Your task to perform on an android device: View the shopping cart on target.com. Add sony triple a to the cart on target.com, then select checkout. Image 0: 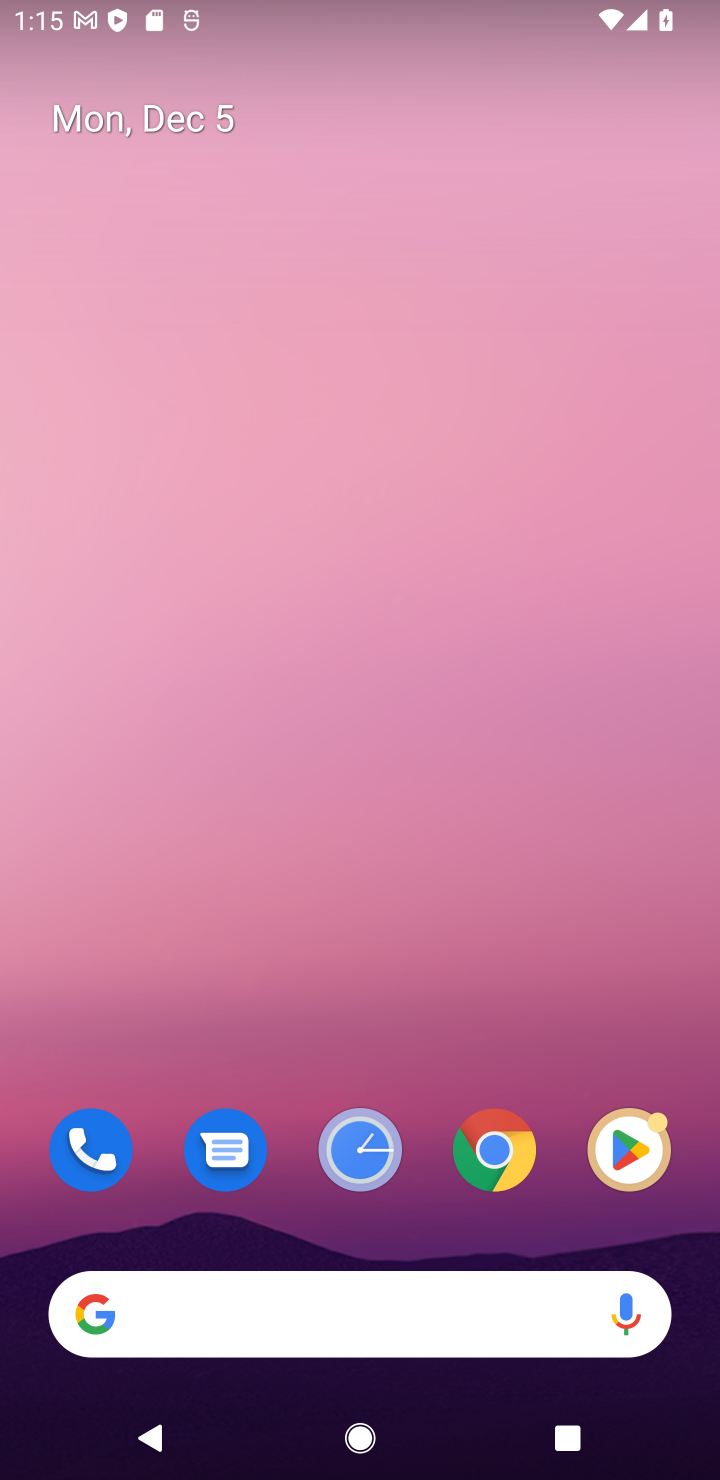
Step 0: click (510, 1158)
Your task to perform on an android device: View the shopping cart on target.com. Add sony triple a to the cart on target.com, then select checkout. Image 1: 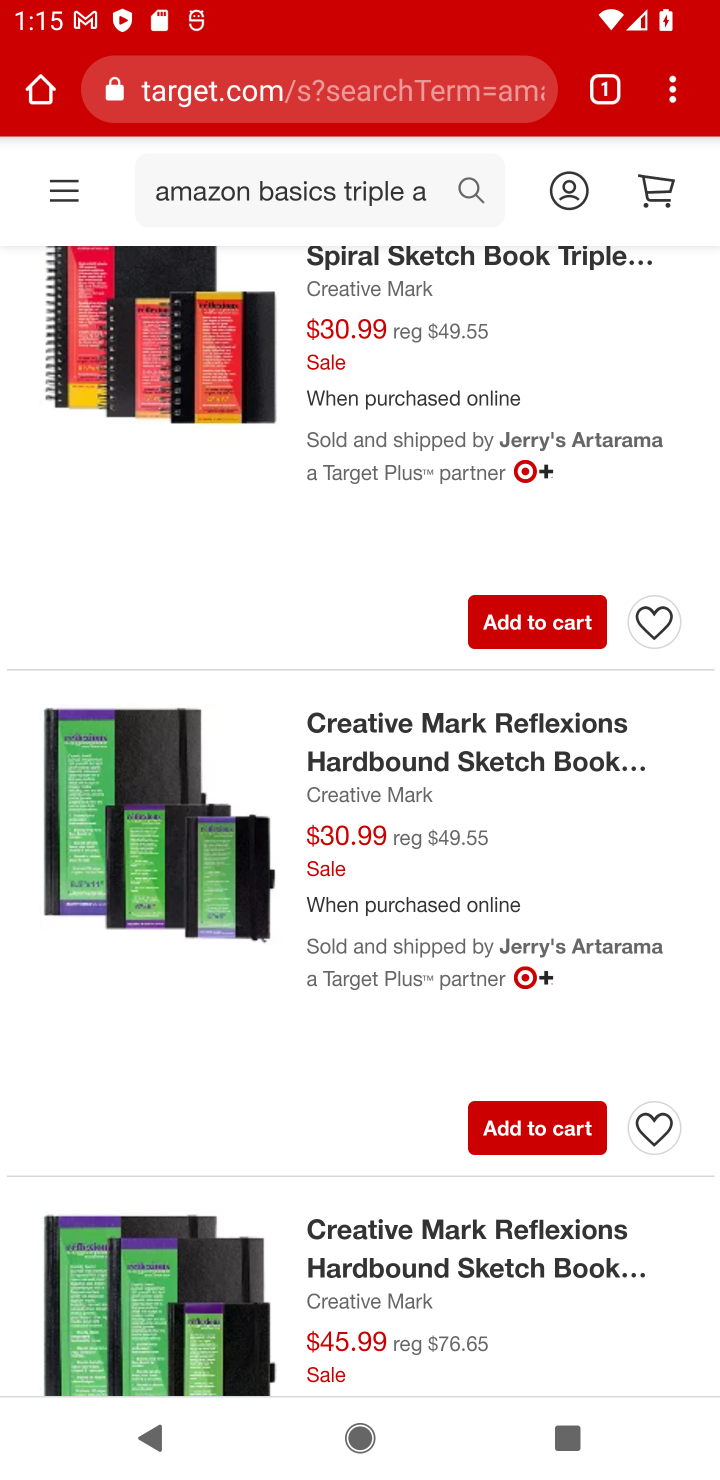
Step 1: task complete